Your task to perform on an android device: Go to Maps Image 0: 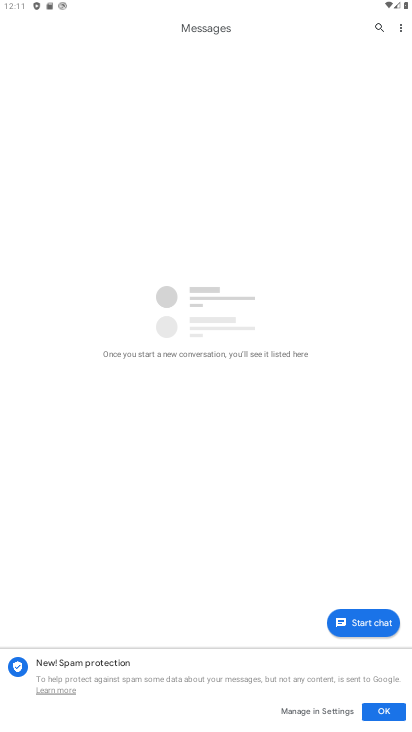
Step 0: press home button
Your task to perform on an android device: Go to Maps Image 1: 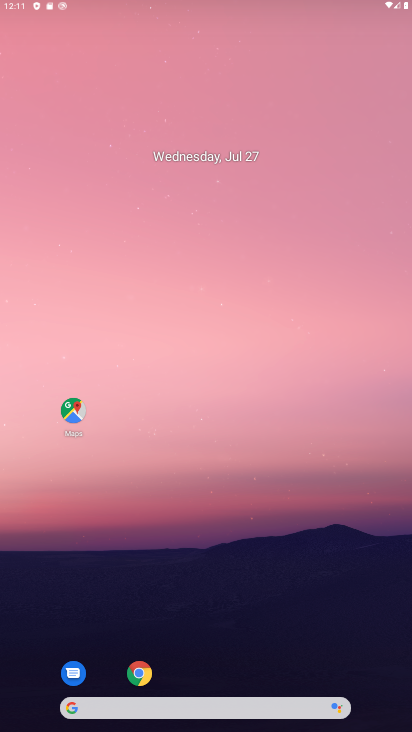
Step 1: drag from (272, 416) to (223, 0)
Your task to perform on an android device: Go to Maps Image 2: 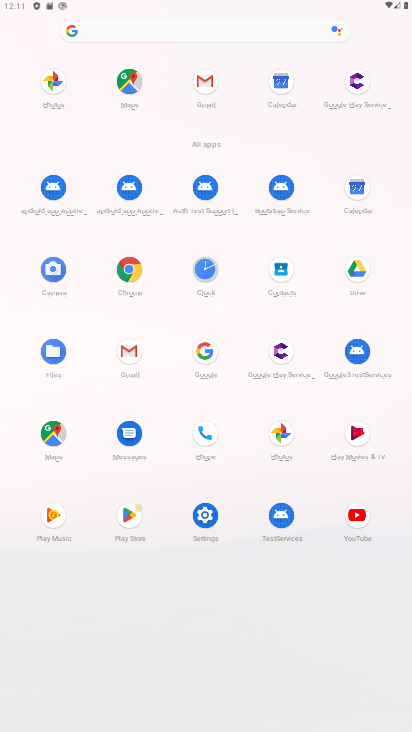
Step 2: click (130, 80)
Your task to perform on an android device: Go to Maps Image 3: 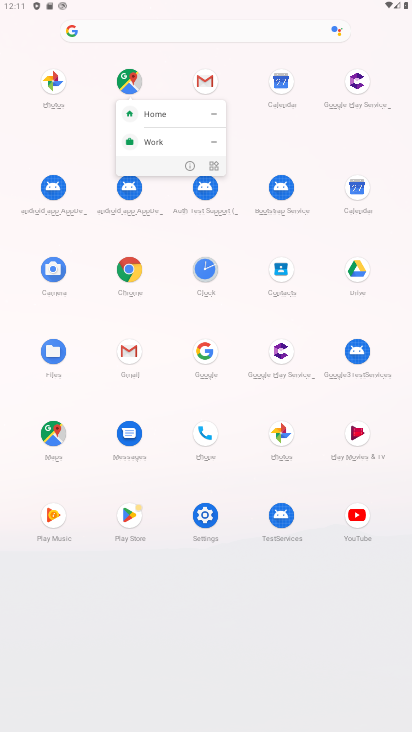
Step 3: click (123, 77)
Your task to perform on an android device: Go to Maps Image 4: 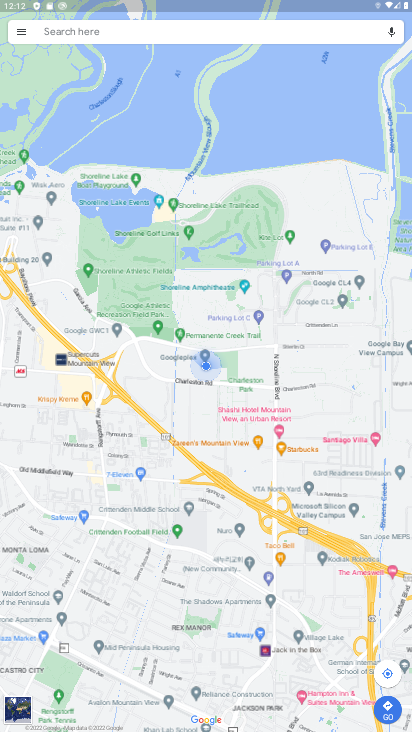
Step 4: task complete